Your task to perform on an android device: Go to network settings Image 0: 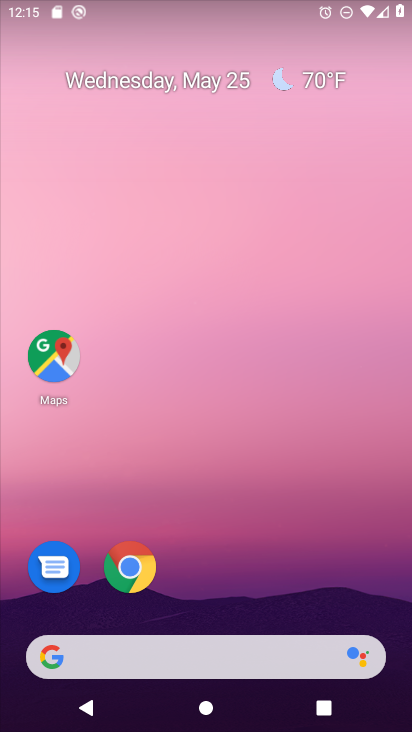
Step 0: drag from (387, 656) to (375, 254)
Your task to perform on an android device: Go to network settings Image 1: 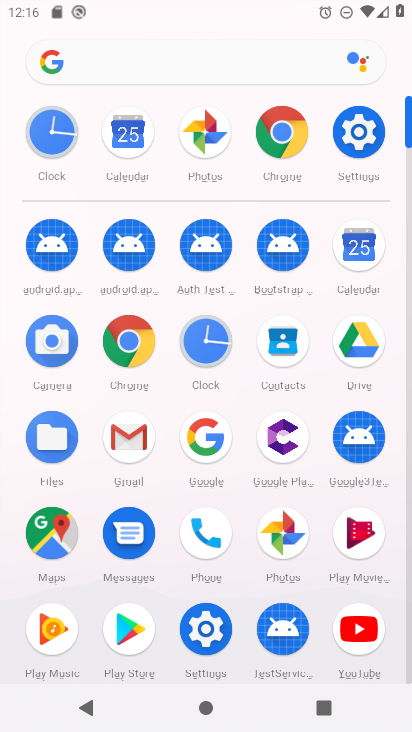
Step 1: click (185, 636)
Your task to perform on an android device: Go to network settings Image 2: 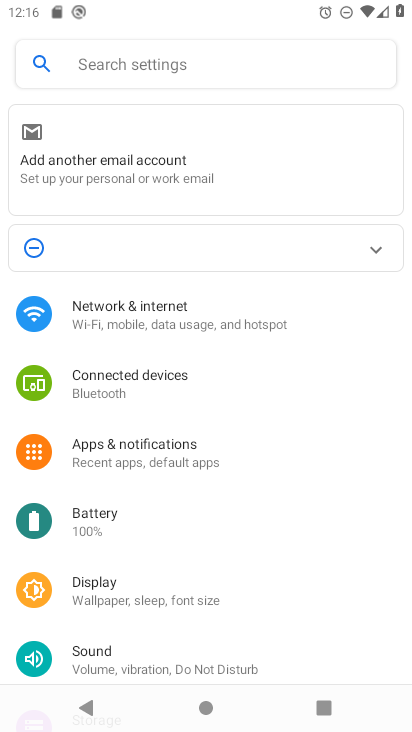
Step 2: click (102, 328)
Your task to perform on an android device: Go to network settings Image 3: 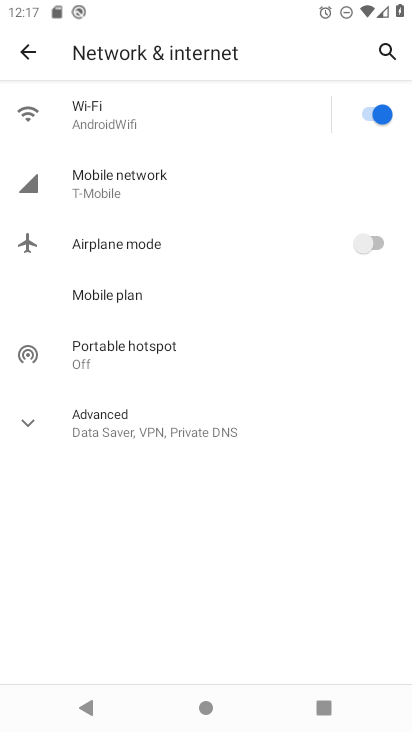
Step 3: click (114, 180)
Your task to perform on an android device: Go to network settings Image 4: 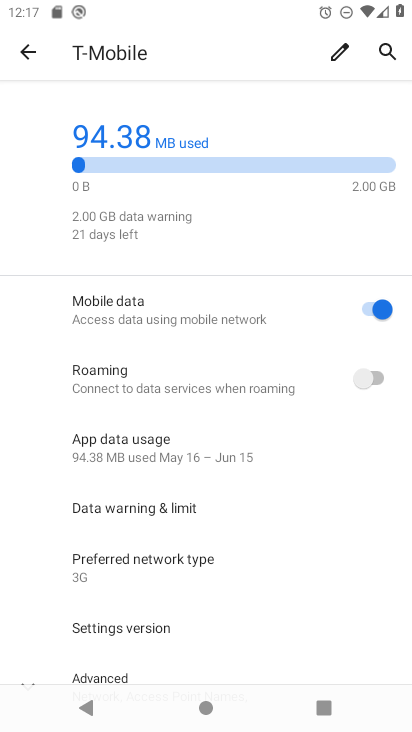
Step 4: task complete